Your task to perform on an android device: toggle data saver in the chrome app Image 0: 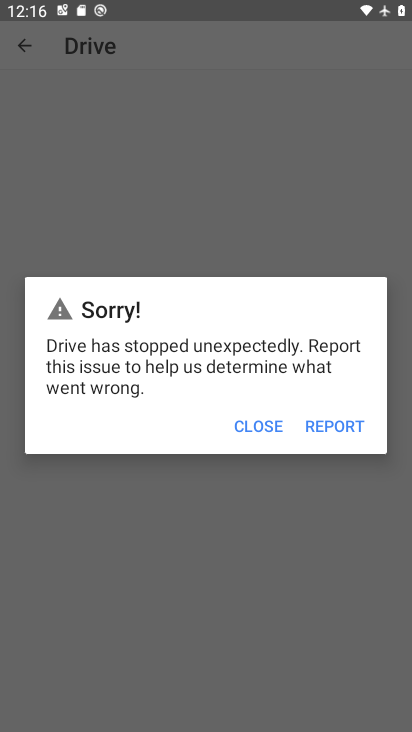
Step 0: press home button
Your task to perform on an android device: toggle data saver in the chrome app Image 1: 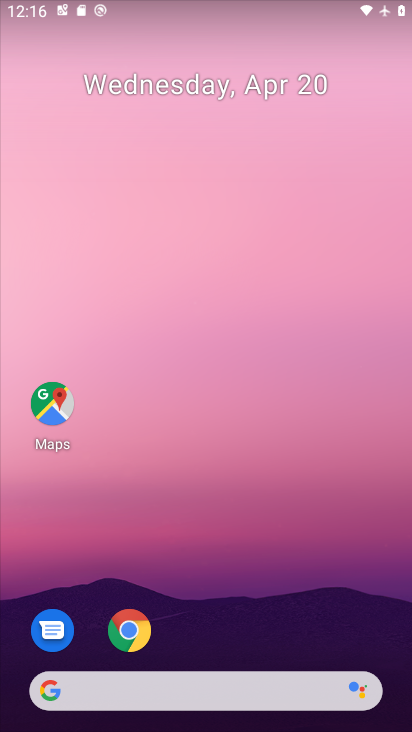
Step 1: drag from (116, 685) to (348, 44)
Your task to perform on an android device: toggle data saver in the chrome app Image 2: 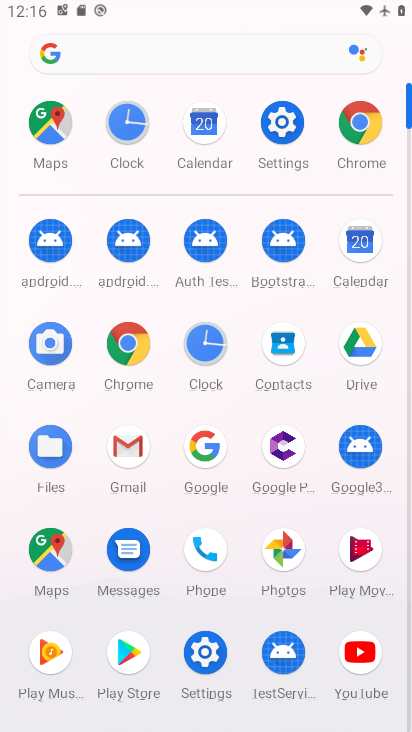
Step 2: click (360, 135)
Your task to perform on an android device: toggle data saver in the chrome app Image 3: 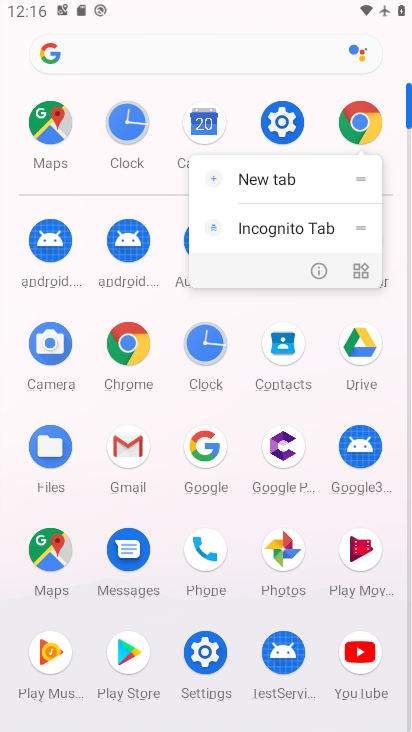
Step 3: click (358, 127)
Your task to perform on an android device: toggle data saver in the chrome app Image 4: 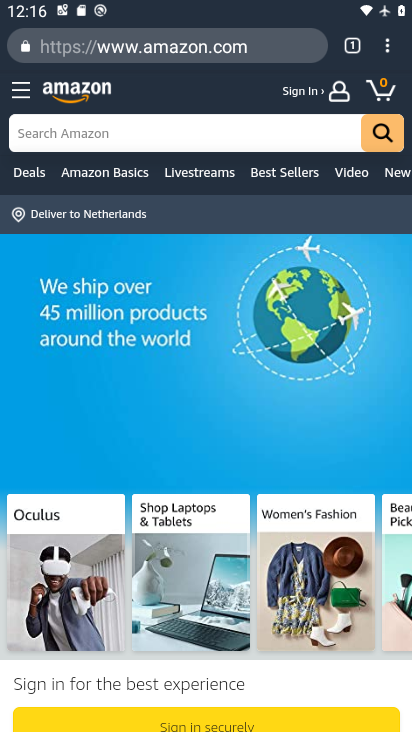
Step 4: click (387, 51)
Your task to perform on an android device: toggle data saver in the chrome app Image 5: 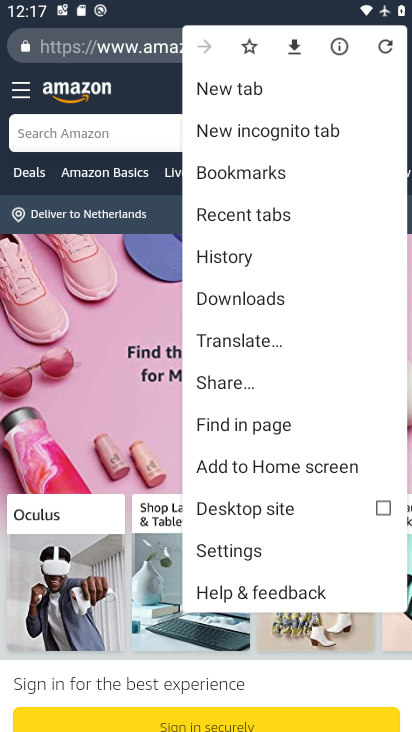
Step 5: click (220, 549)
Your task to perform on an android device: toggle data saver in the chrome app Image 6: 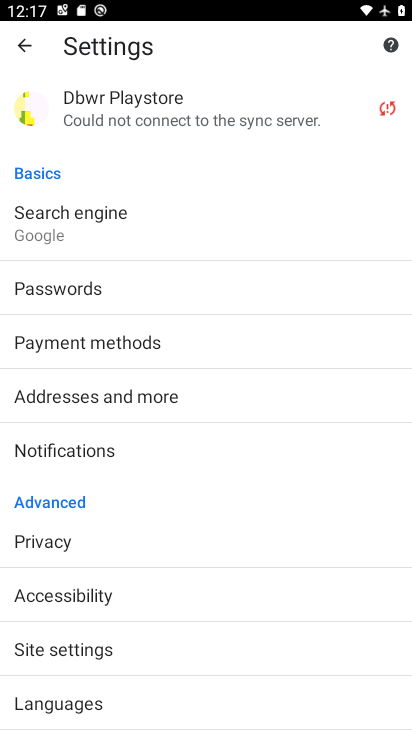
Step 6: drag from (137, 608) to (265, 375)
Your task to perform on an android device: toggle data saver in the chrome app Image 7: 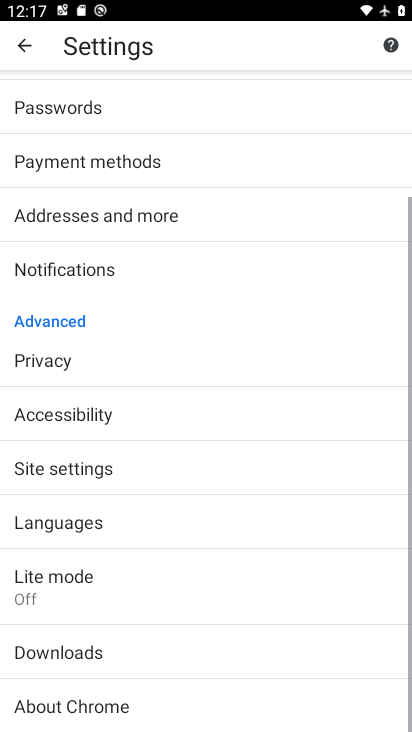
Step 7: click (81, 578)
Your task to perform on an android device: toggle data saver in the chrome app Image 8: 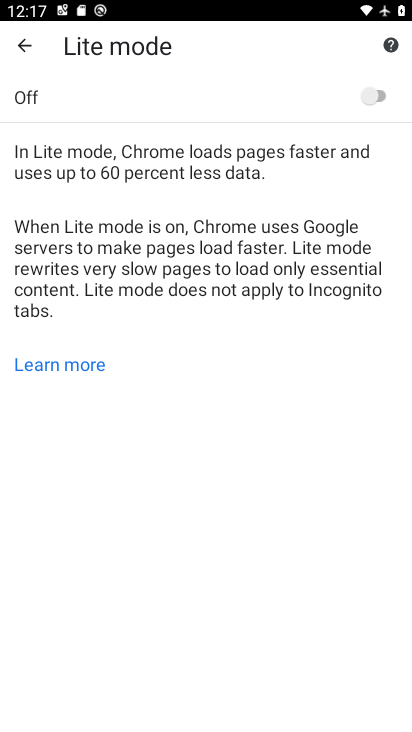
Step 8: click (377, 94)
Your task to perform on an android device: toggle data saver in the chrome app Image 9: 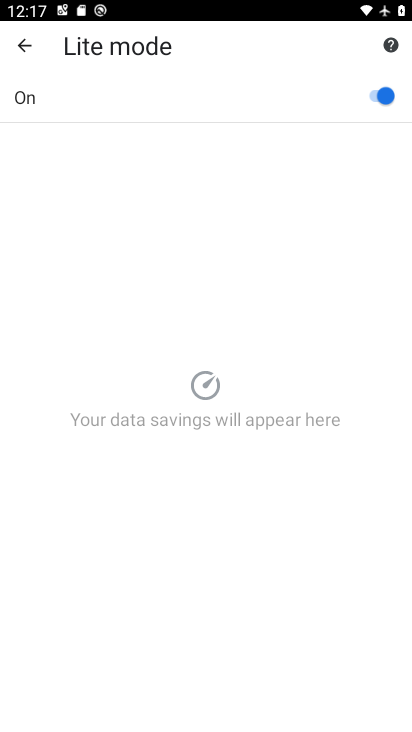
Step 9: task complete